Your task to perform on an android device: Open internet settings Image 0: 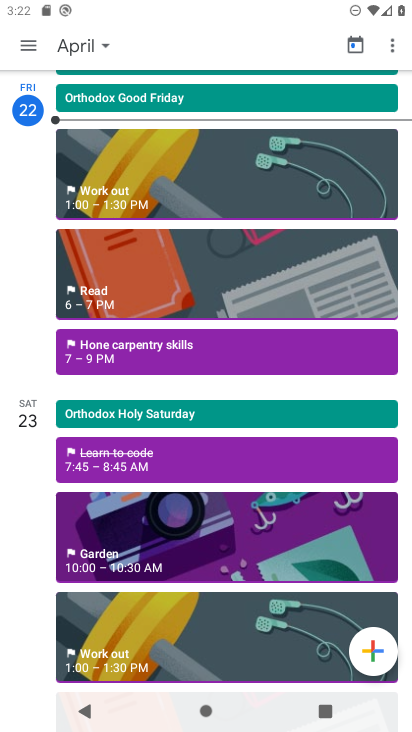
Step 0: press home button
Your task to perform on an android device: Open internet settings Image 1: 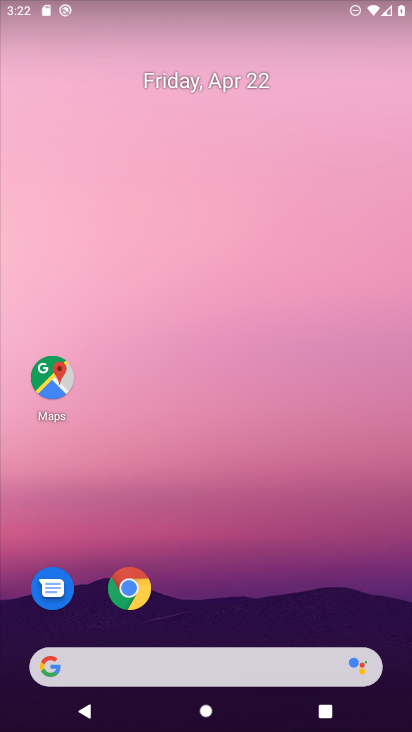
Step 1: drag from (213, 576) to (254, 40)
Your task to perform on an android device: Open internet settings Image 2: 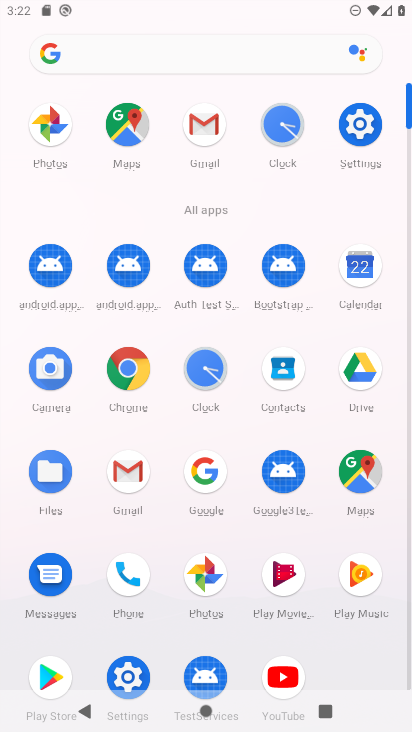
Step 2: click (359, 132)
Your task to perform on an android device: Open internet settings Image 3: 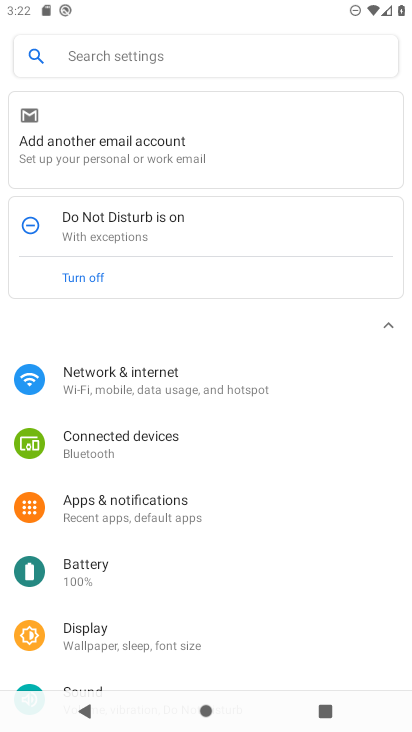
Step 3: click (152, 387)
Your task to perform on an android device: Open internet settings Image 4: 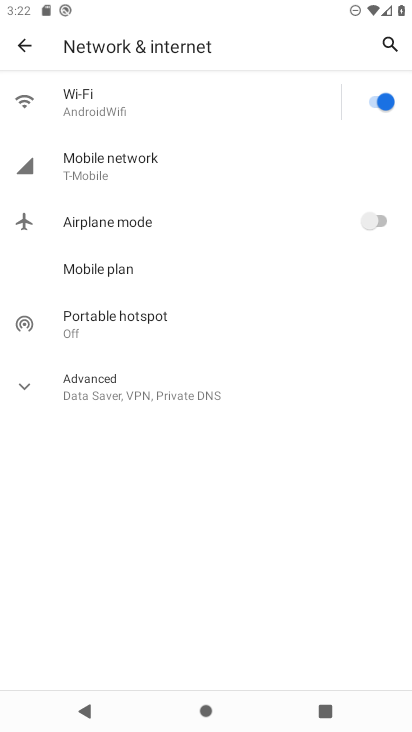
Step 4: task complete